Your task to perform on an android device: toggle notification dots Image 0: 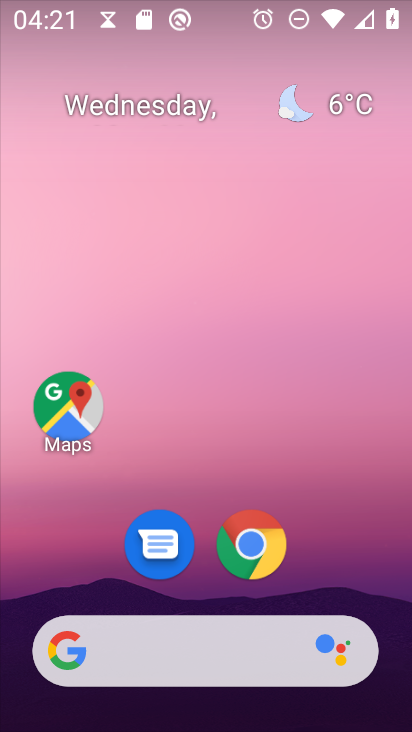
Step 0: drag from (330, 567) to (274, 79)
Your task to perform on an android device: toggle notification dots Image 1: 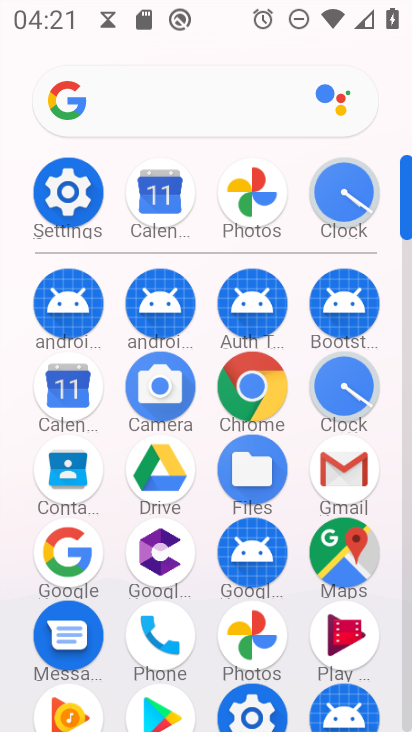
Step 1: click (58, 197)
Your task to perform on an android device: toggle notification dots Image 2: 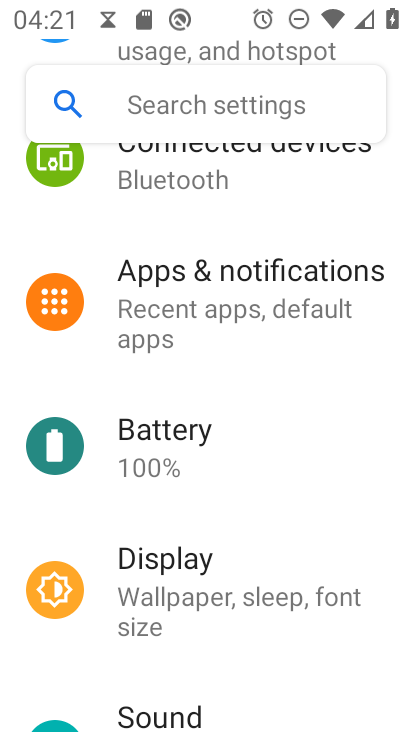
Step 2: click (169, 317)
Your task to perform on an android device: toggle notification dots Image 3: 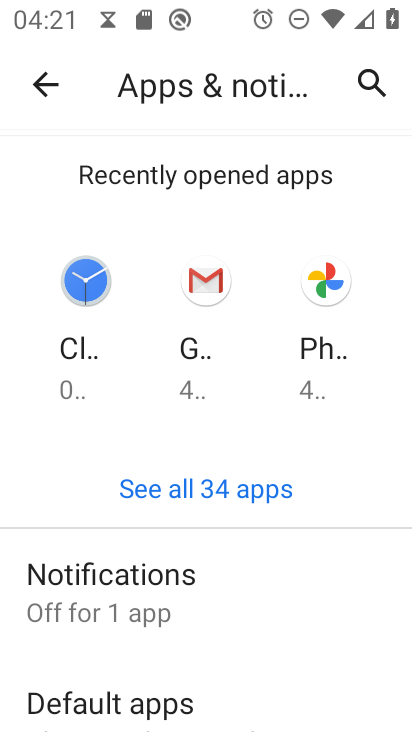
Step 3: click (187, 607)
Your task to perform on an android device: toggle notification dots Image 4: 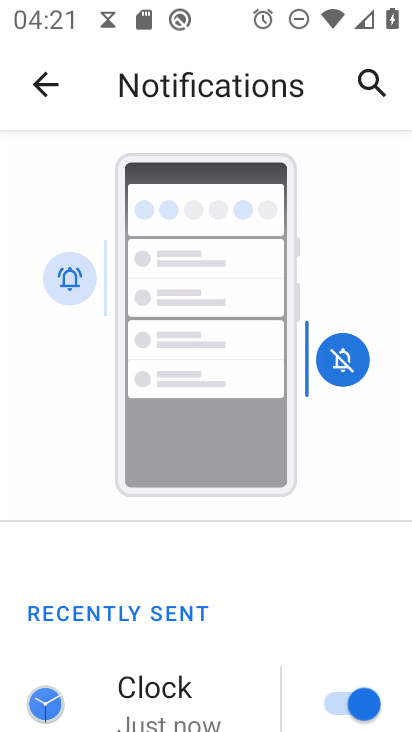
Step 4: drag from (164, 665) to (169, 385)
Your task to perform on an android device: toggle notification dots Image 5: 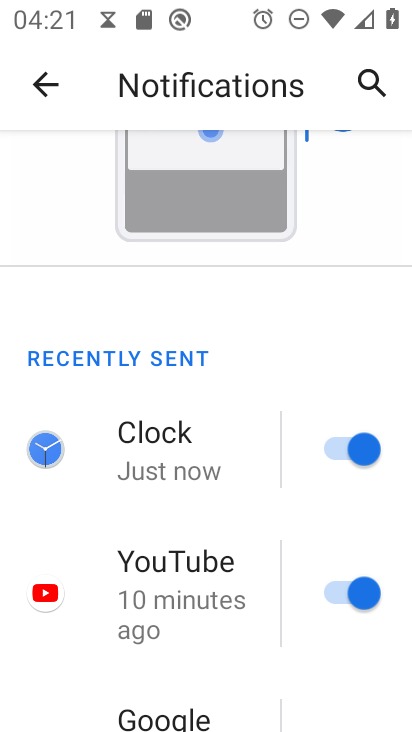
Step 5: drag from (190, 619) to (157, 435)
Your task to perform on an android device: toggle notification dots Image 6: 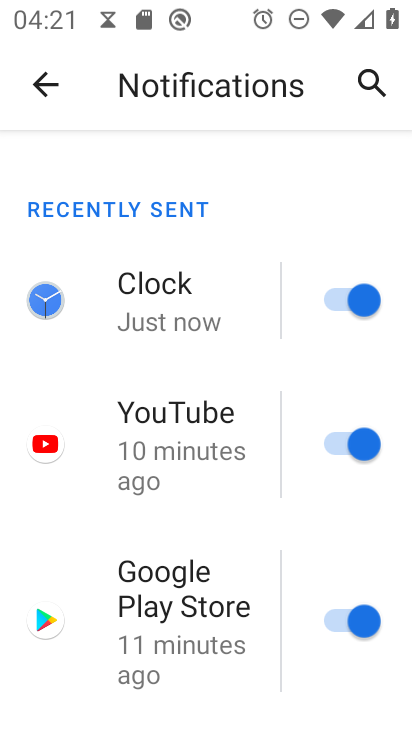
Step 6: drag from (218, 642) to (182, 421)
Your task to perform on an android device: toggle notification dots Image 7: 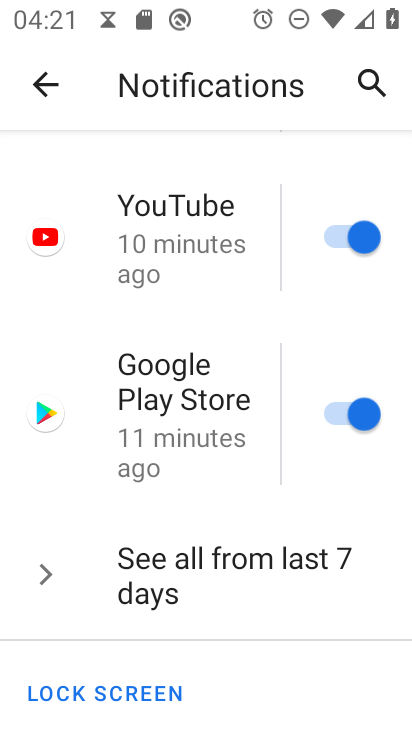
Step 7: drag from (189, 612) to (131, 423)
Your task to perform on an android device: toggle notification dots Image 8: 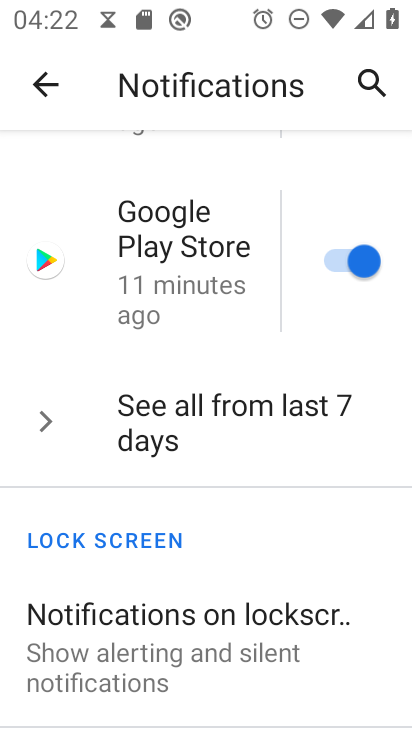
Step 8: drag from (152, 666) to (142, 313)
Your task to perform on an android device: toggle notification dots Image 9: 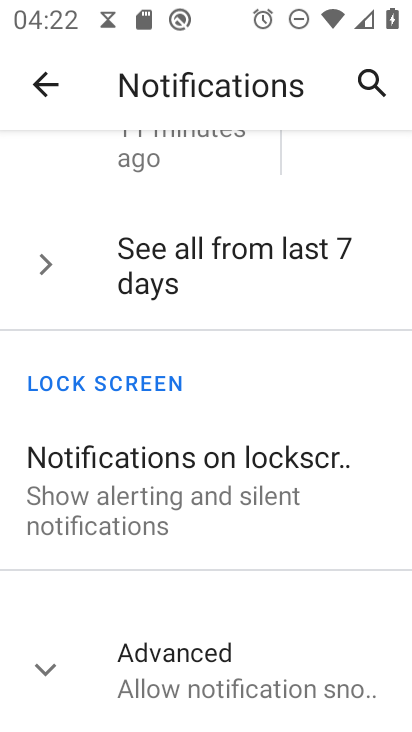
Step 9: click (174, 660)
Your task to perform on an android device: toggle notification dots Image 10: 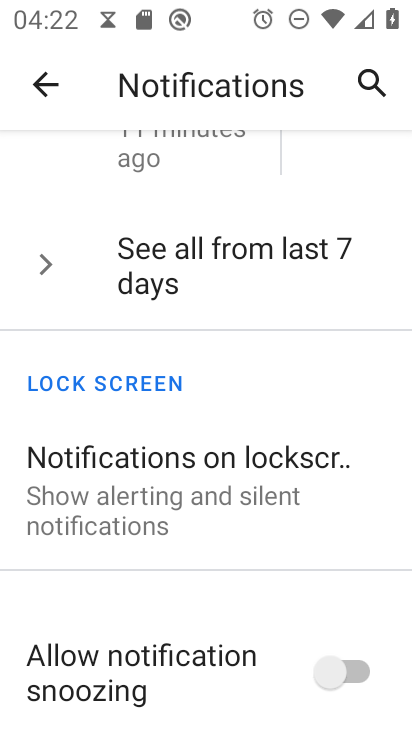
Step 10: drag from (143, 706) to (108, 326)
Your task to perform on an android device: toggle notification dots Image 11: 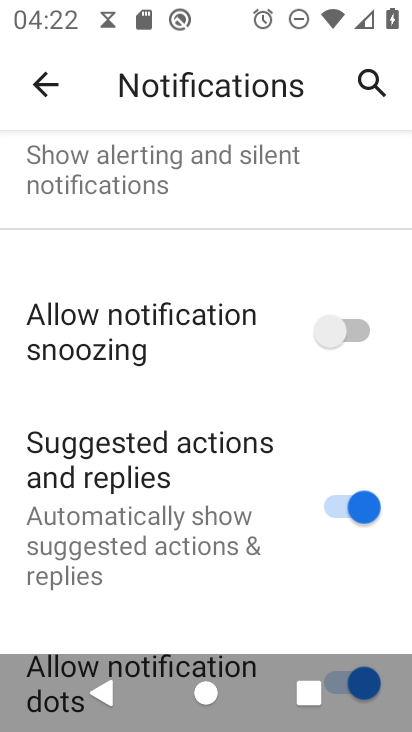
Step 11: drag from (198, 618) to (180, 325)
Your task to perform on an android device: toggle notification dots Image 12: 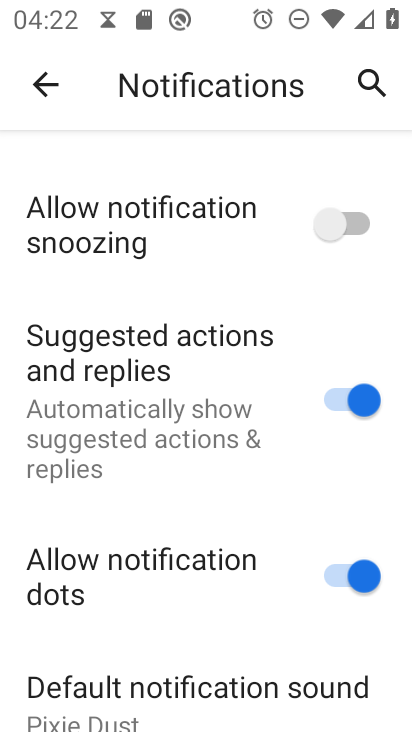
Step 12: click (331, 592)
Your task to perform on an android device: toggle notification dots Image 13: 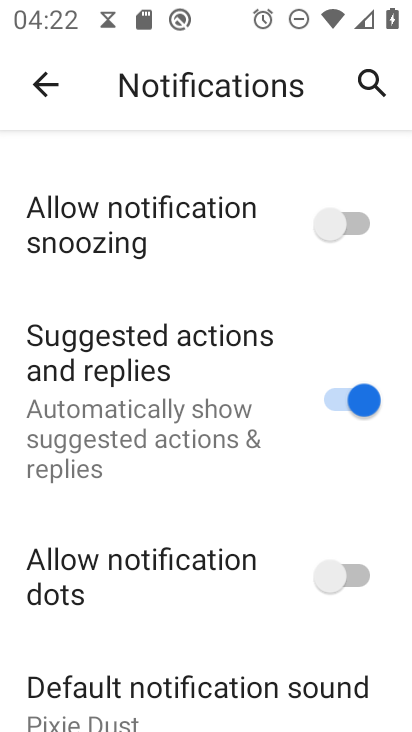
Step 13: task complete